Your task to perform on an android device: install app "WhatsApp Messenger" Image 0: 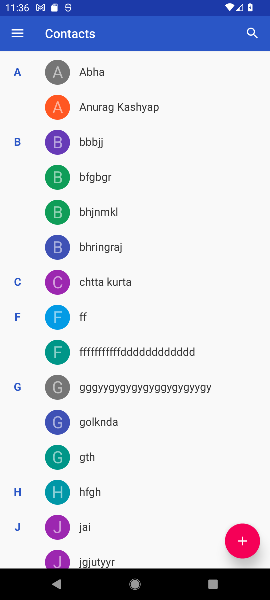
Step 0: press home button
Your task to perform on an android device: install app "WhatsApp Messenger" Image 1: 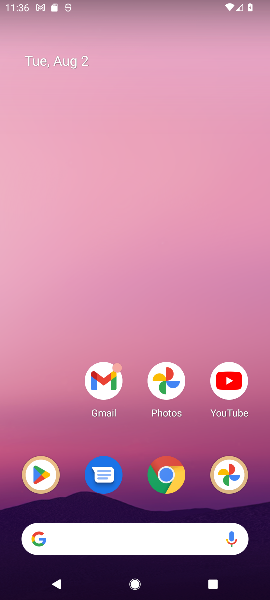
Step 1: click (46, 472)
Your task to perform on an android device: install app "WhatsApp Messenger" Image 2: 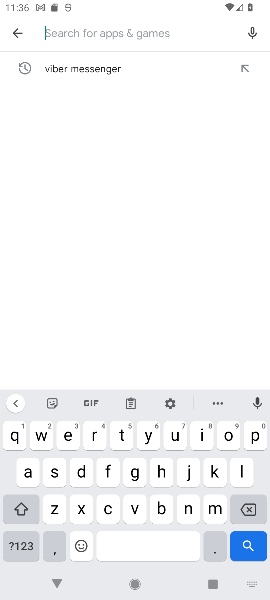
Step 2: type "WhatsApp Messenger"
Your task to perform on an android device: install app "WhatsApp Messenger" Image 3: 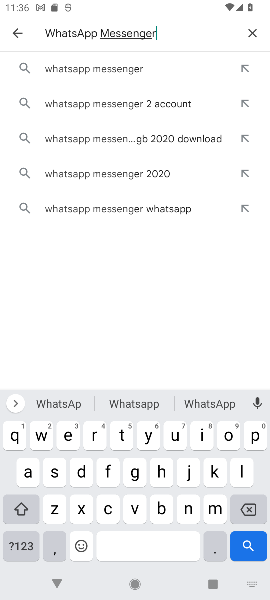
Step 3: type ""
Your task to perform on an android device: install app "WhatsApp Messenger" Image 4: 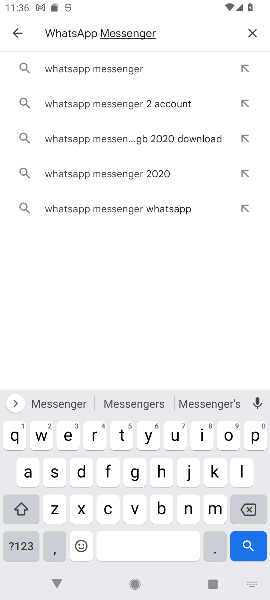
Step 4: click (99, 70)
Your task to perform on an android device: install app "WhatsApp Messenger" Image 5: 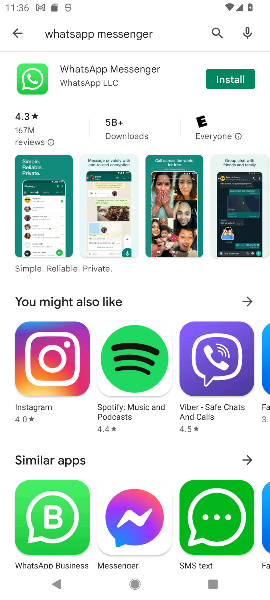
Step 5: click (235, 74)
Your task to perform on an android device: install app "WhatsApp Messenger" Image 6: 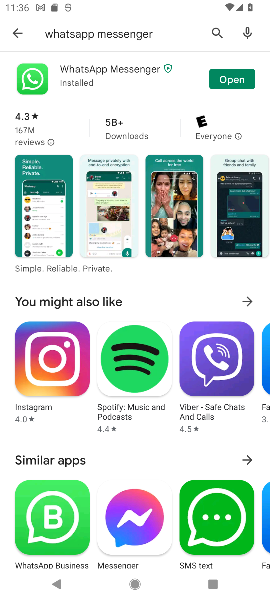
Step 6: task complete